Your task to perform on an android device: install app "PUBG MOBILE" Image 0: 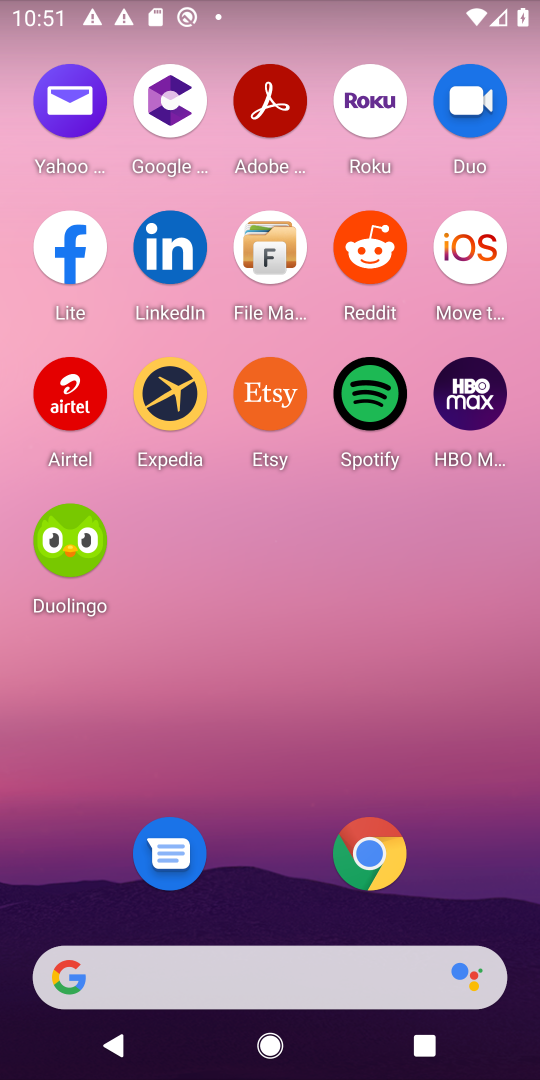
Step 0: drag from (301, 848) to (338, 377)
Your task to perform on an android device: install app "PUBG MOBILE" Image 1: 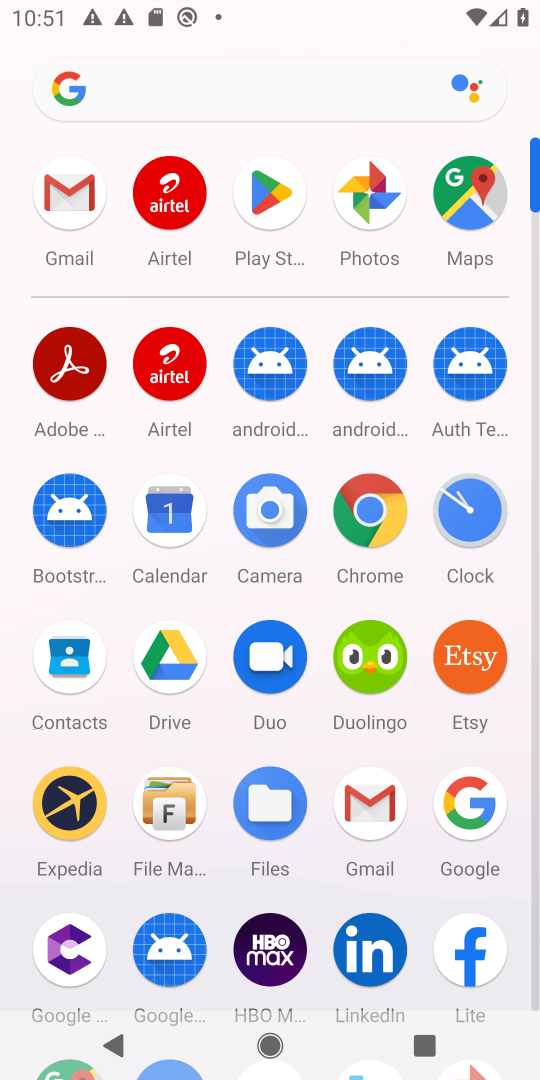
Step 1: click (254, 198)
Your task to perform on an android device: install app "PUBG MOBILE" Image 2: 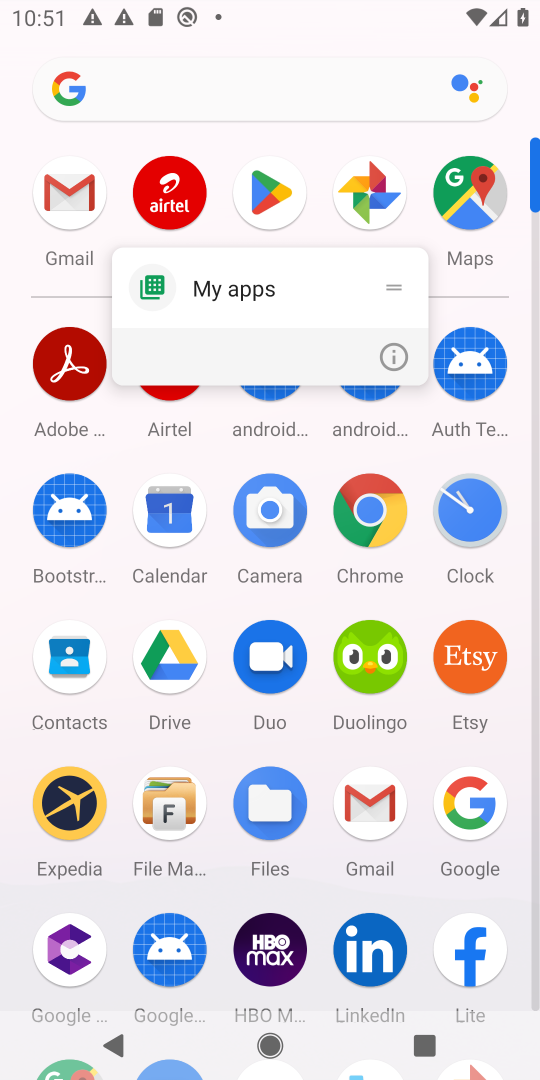
Step 2: click (409, 373)
Your task to perform on an android device: install app "PUBG MOBILE" Image 3: 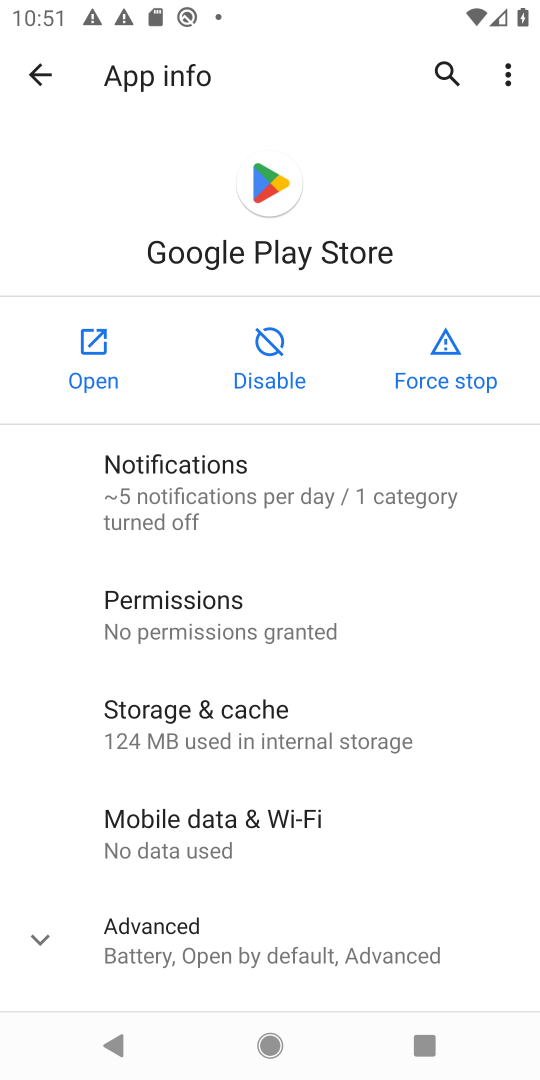
Step 3: click (91, 343)
Your task to perform on an android device: install app "PUBG MOBILE" Image 4: 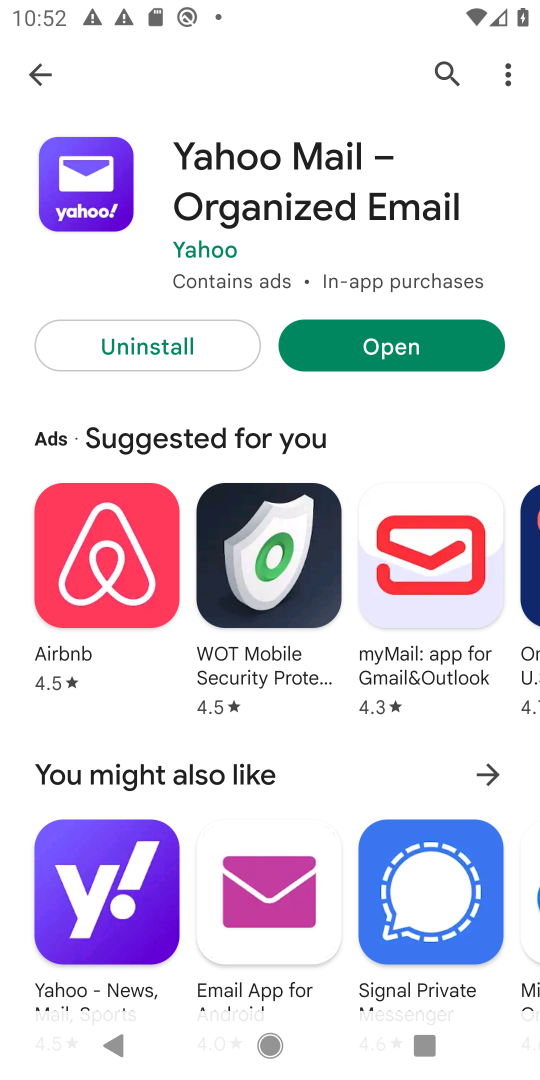
Step 4: click (445, 78)
Your task to perform on an android device: install app "PUBG MOBILE" Image 5: 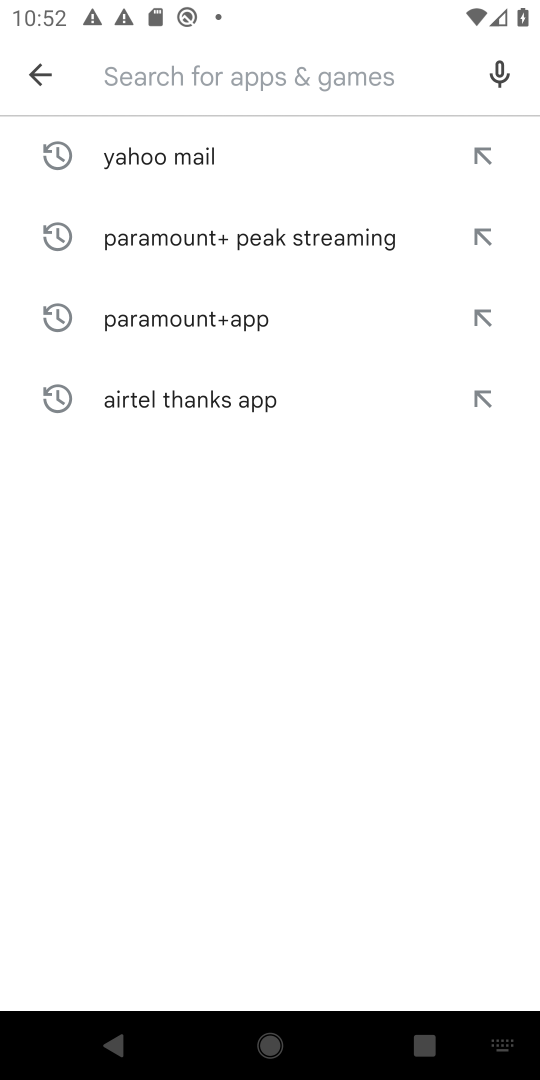
Step 5: click (135, 91)
Your task to perform on an android device: install app "PUBG MOBILE" Image 6: 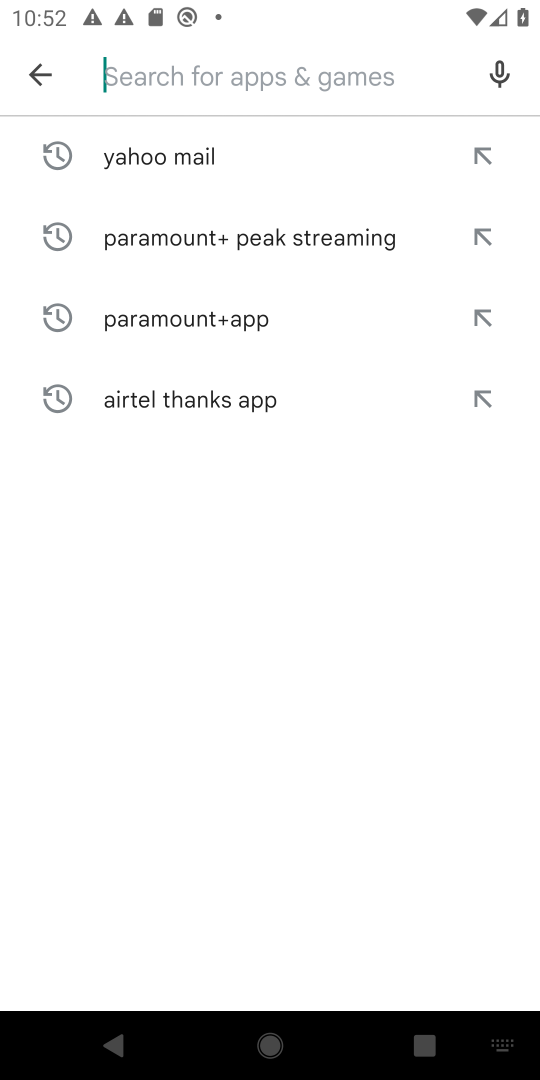
Step 6: type "PUBG MOBILE"
Your task to perform on an android device: install app "PUBG MOBILE" Image 7: 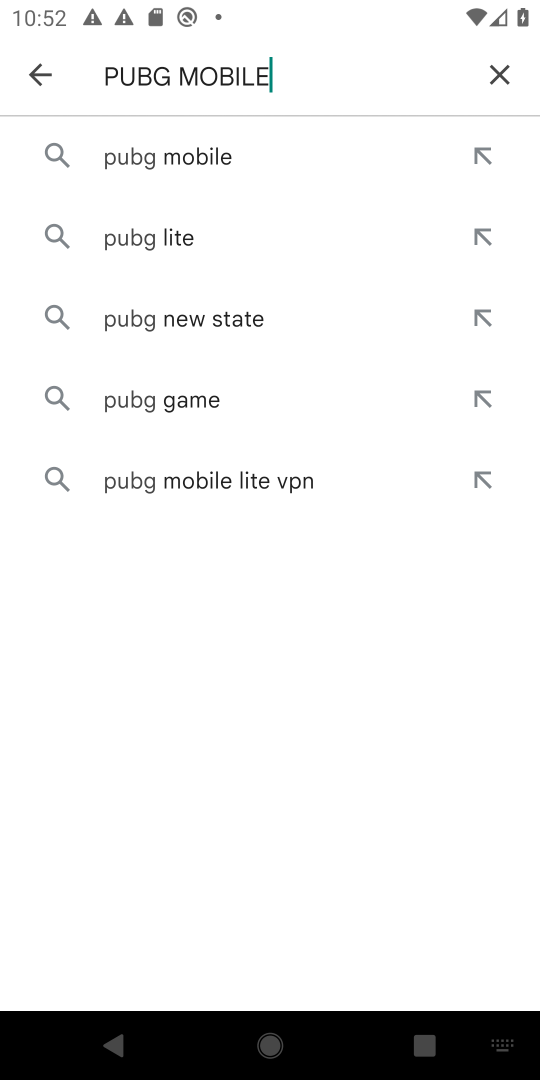
Step 7: type ""
Your task to perform on an android device: install app "PUBG MOBILE" Image 8: 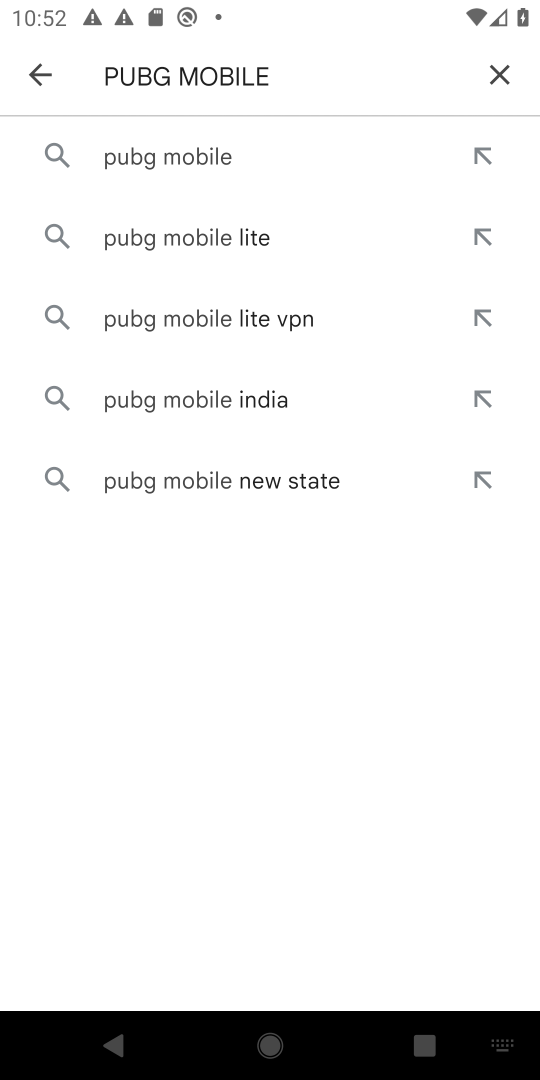
Step 8: click (200, 149)
Your task to perform on an android device: install app "PUBG MOBILE" Image 9: 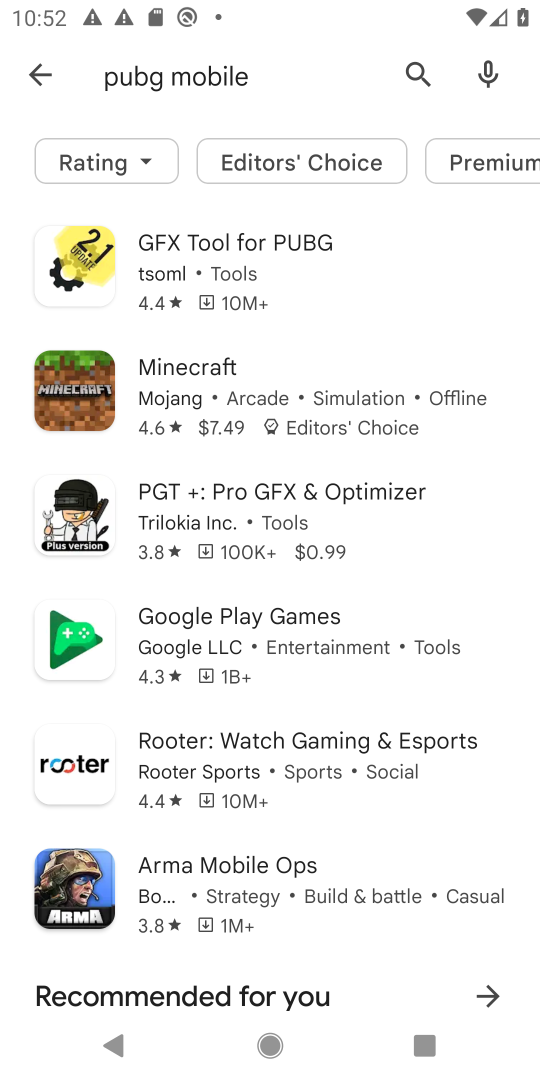
Step 9: task complete